Your task to perform on an android device: turn on improve location accuracy Image 0: 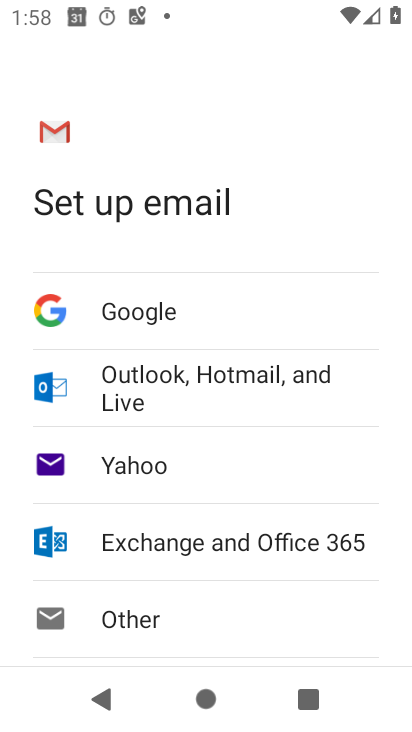
Step 0: press home button
Your task to perform on an android device: turn on improve location accuracy Image 1: 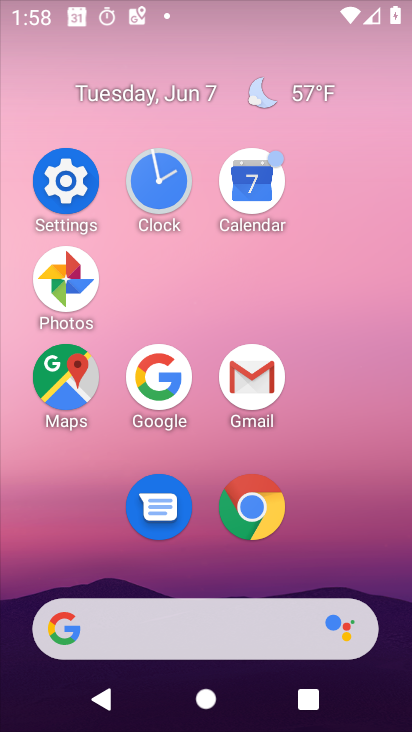
Step 1: click (67, 187)
Your task to perform on an android device: turn on improve location accuracy Image 2: 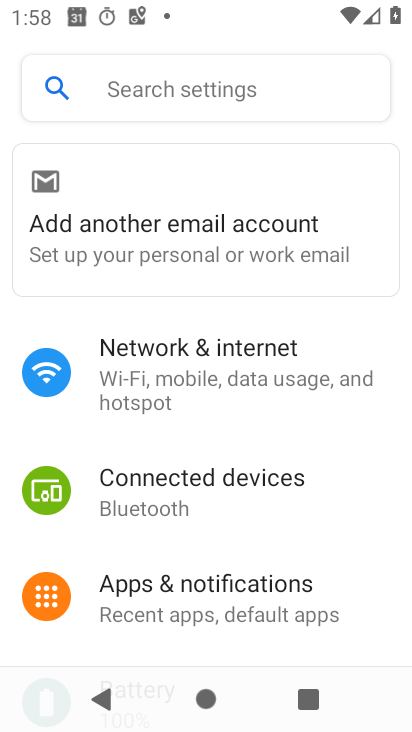
Step 2: drag from (255, 626) to (354, 105)
Your task to perform on an android device: turn on improve location accuracy Image 3: 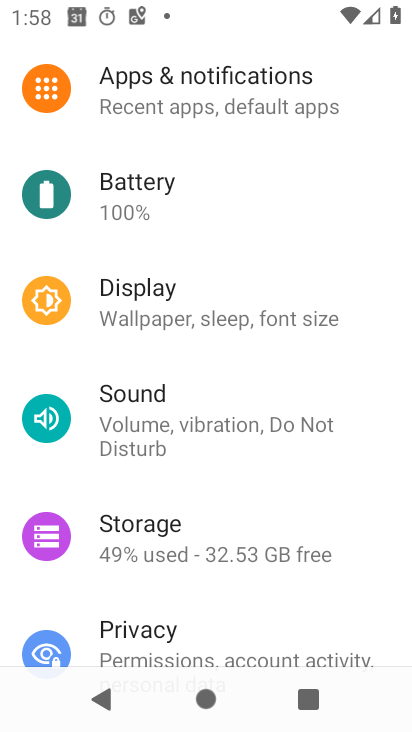
Step 3: drag from (318, 550) to (327, 192)
Your task to perform on an android device: turn on improve location accuracy Image 4: 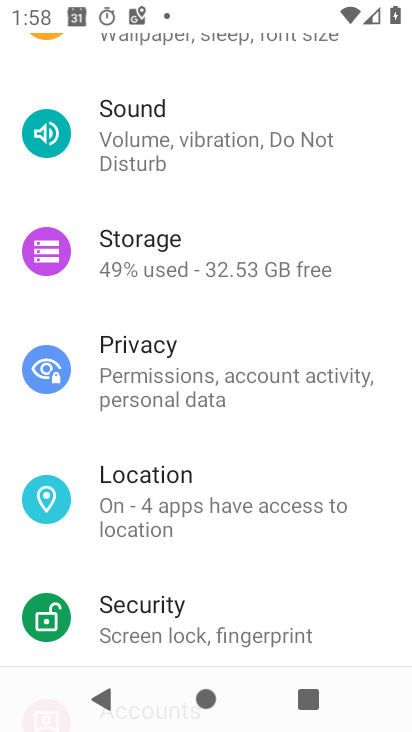
Step 4: click (291, 504)
Your task to perform on an android device: turn on improve location accuracy Image 5: 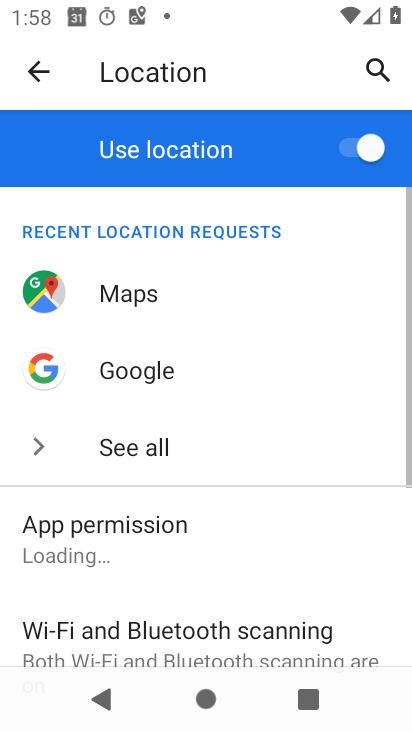
Step 5: drag from (291, 504) to (298, 204)
Your task to perform on an android device: turn on improve location accuracy Image 6: 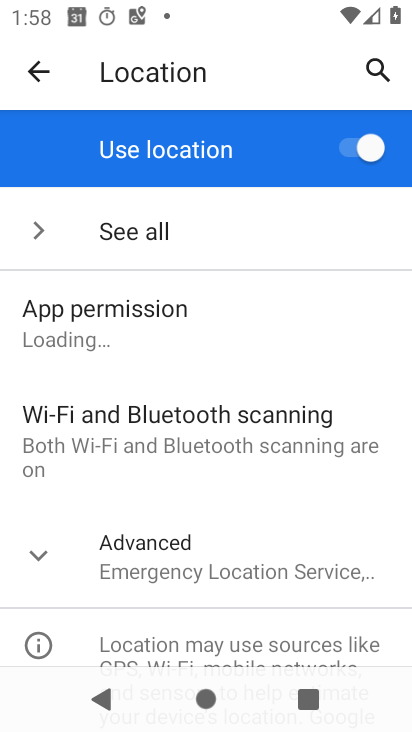
Step 6: click (268, 545)
Your task to perform on an android device: turn on improve location accuracy Image 7: 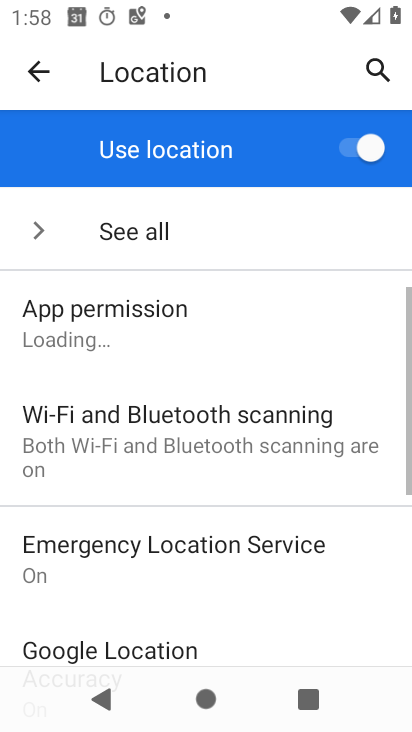
Step 7: drag from (279, 516) to (267, 214)
Your task to perform on an android device: turn on improve location accuracy Image 8: 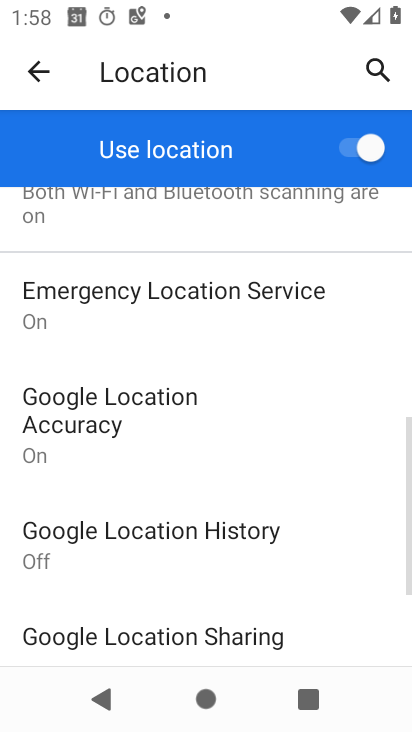
Step 8: drag from (262, 573) to (252, 293)
Your task to perform on an android device: turn on improve location accuracy Image 9: 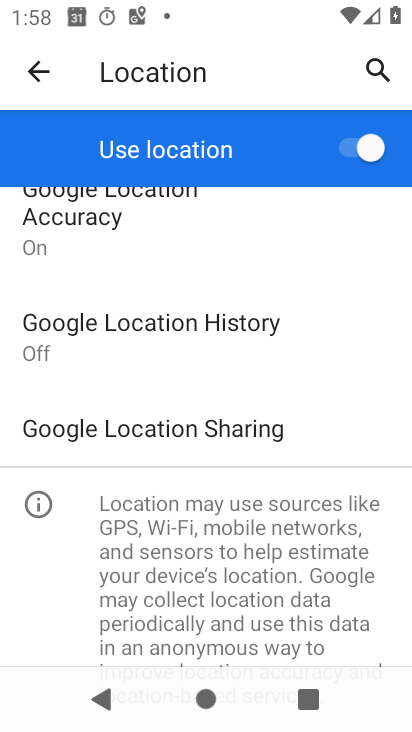
Step 9: drag from (266, 304) to (255, 589)
Your task to perform on an android device: turn on improve location accuracy Image 10: 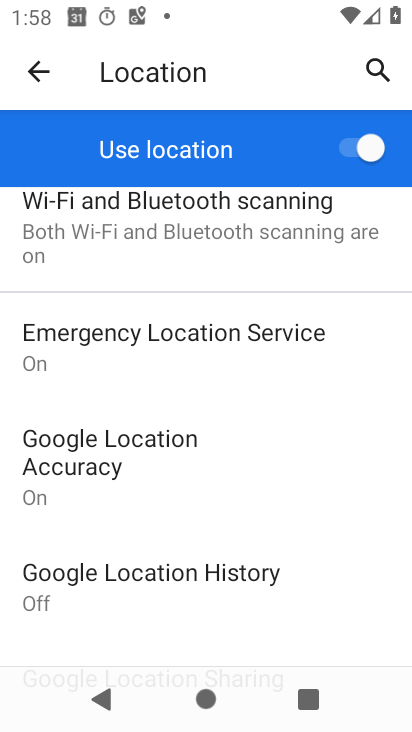
Step 10: click (159, 427)
Your task to perform on an android device: turn on improve location accuracy Image 11: 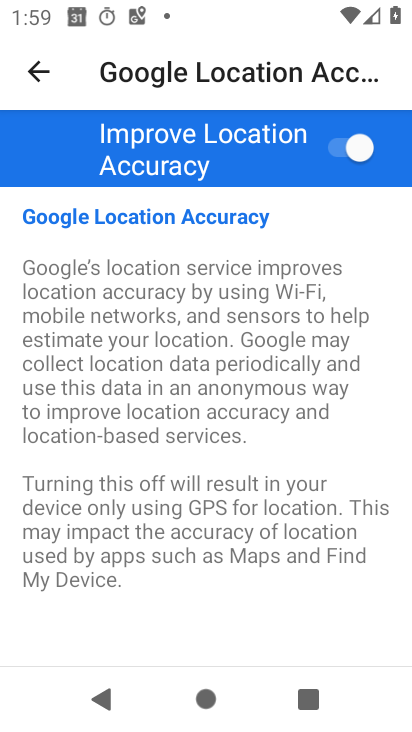
Step 11: task complete